Your task to perform on an android device: Open sound settings Image 0: 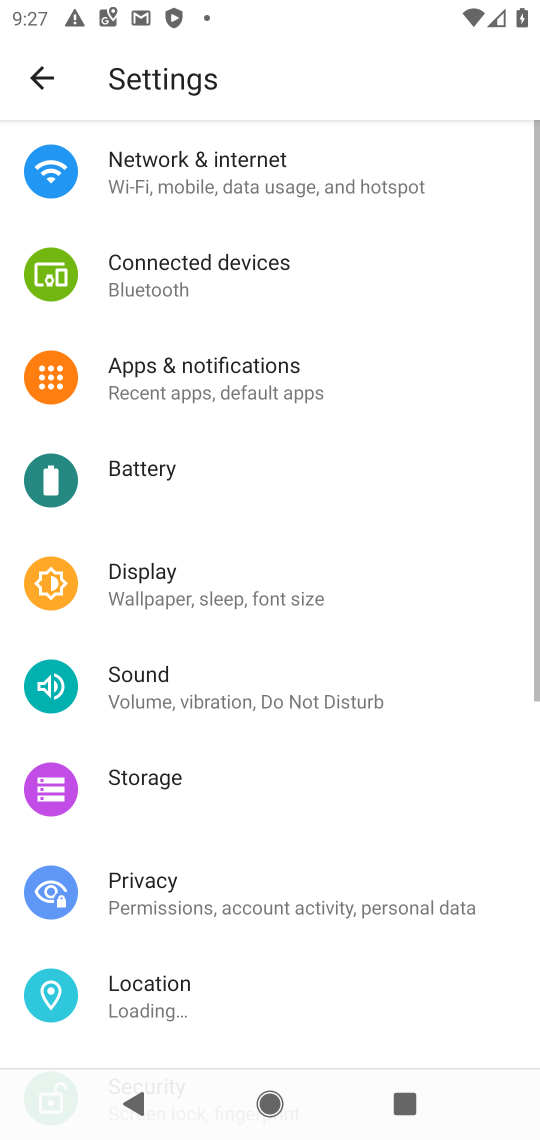
Step 0: press home button
Your task to perform on an android device: Open sound settings Image 1: 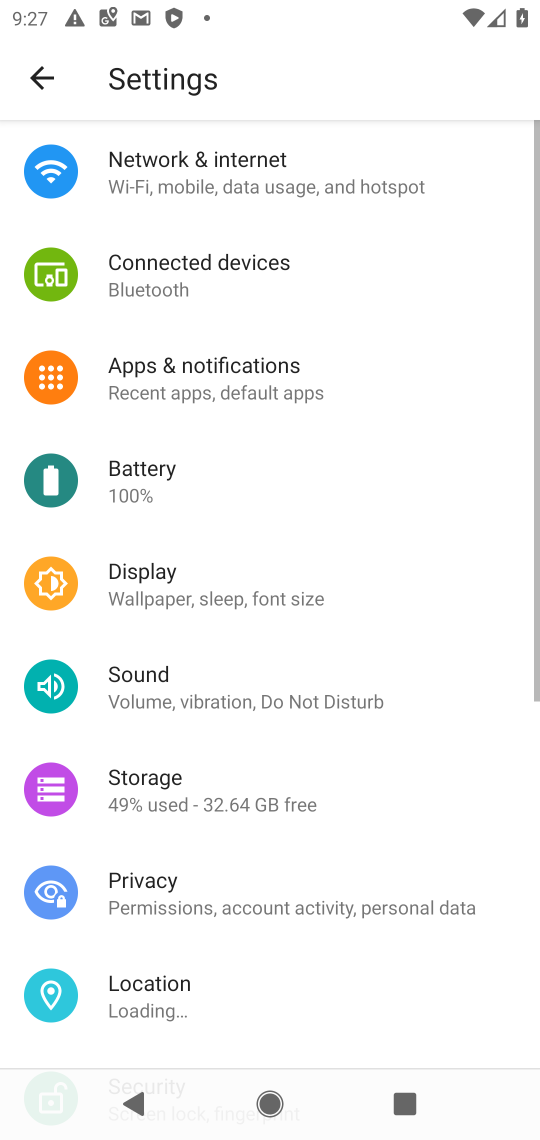
Step 1: press home button
Your task to perform on an android device: Open sound settings Image 2: 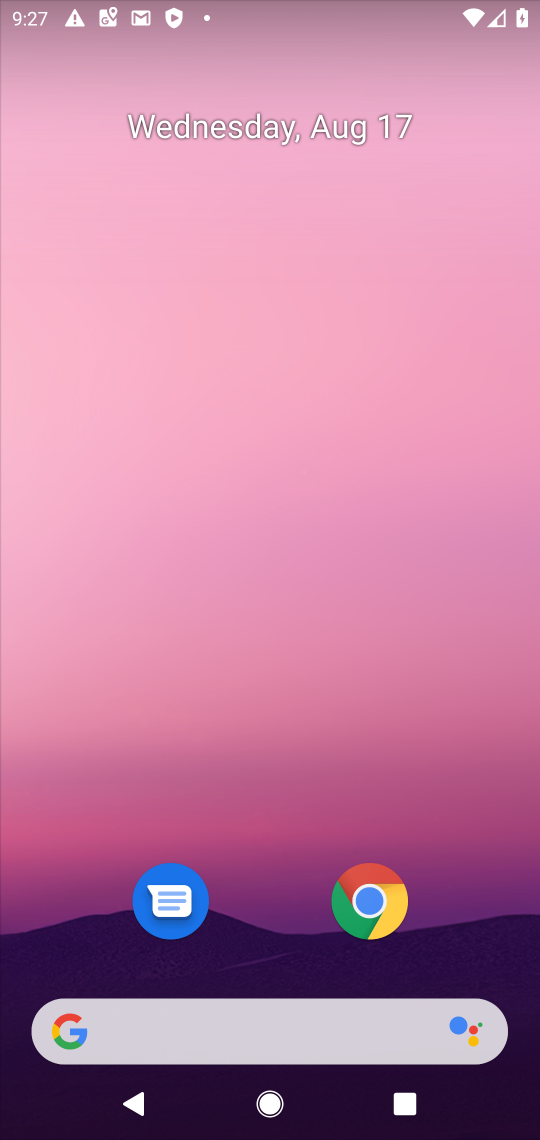
Step 2: drag from (256, 900) to (326, 215)
Your task to perform on an android device: Open sound settings Image 3: 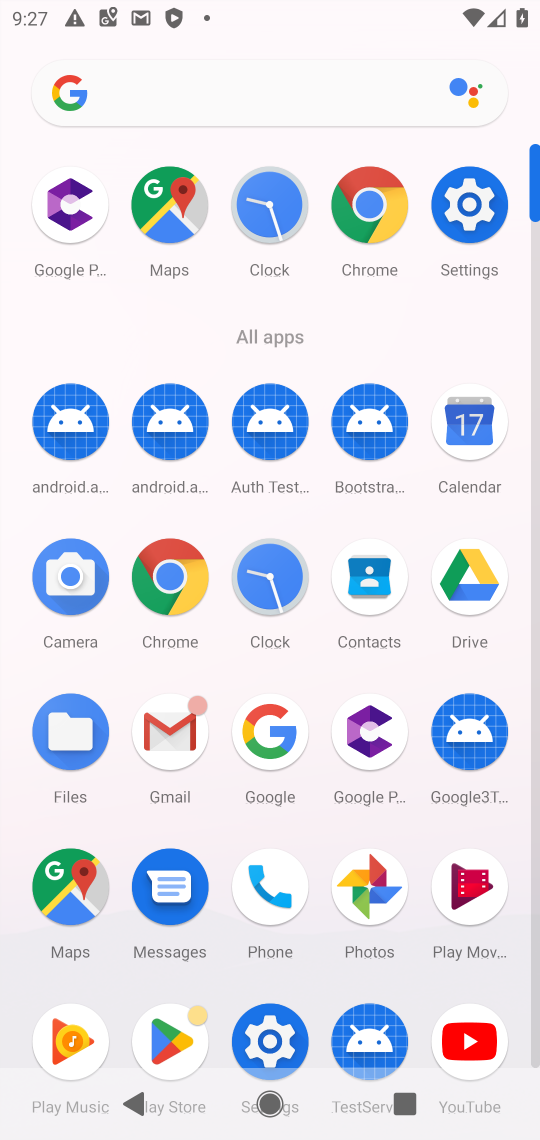
Step 3: click (272, 1036)
Your task to perform on an android device: Open sound settings Image 4: 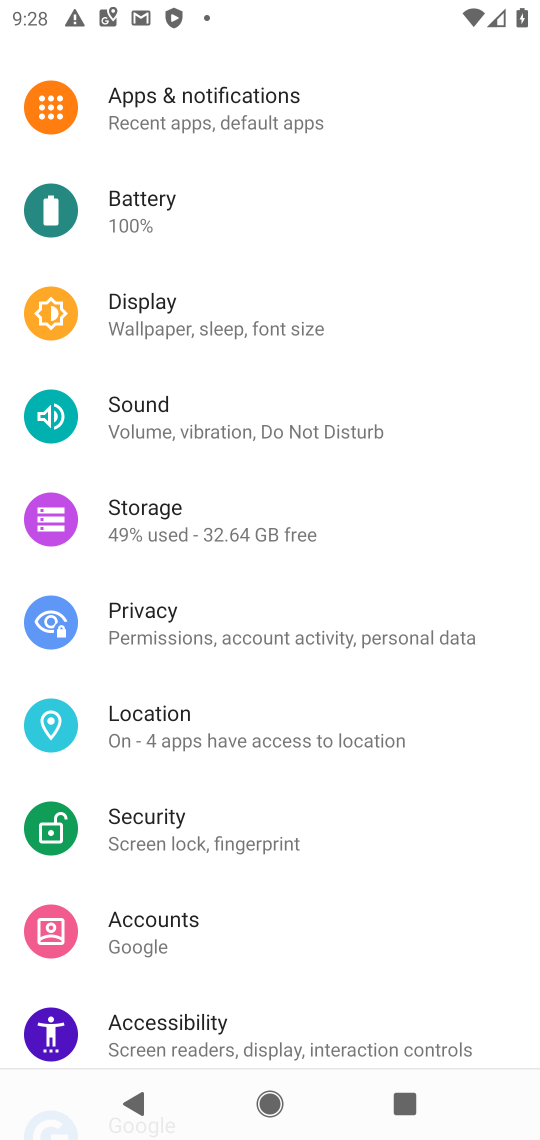
Step 4: click (188, 419)
Your task to perform on an android device: Open sound settings Image 5: 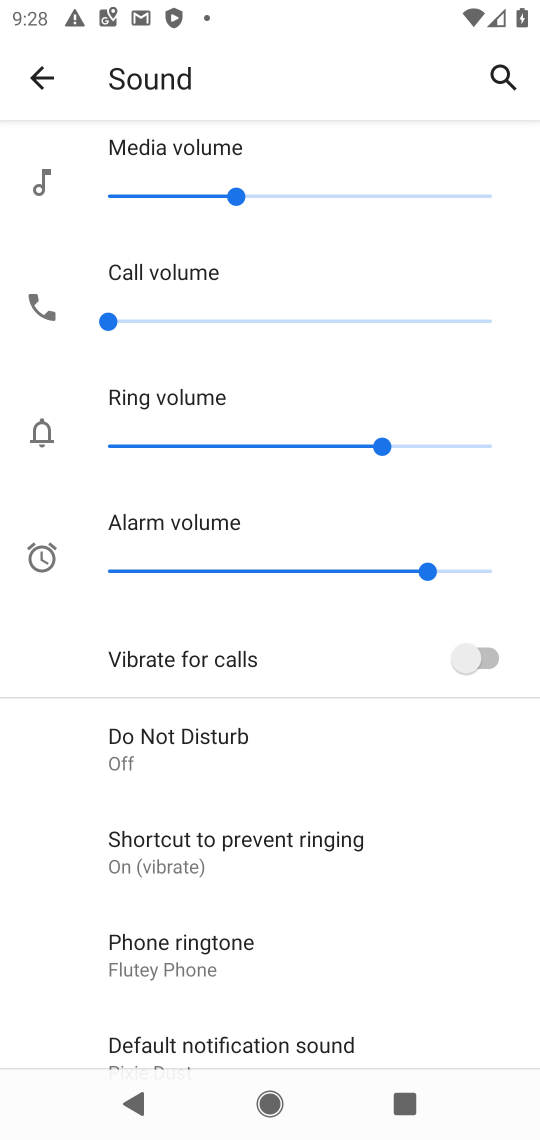
Step 5: task complete